Your task to perform on an android device: Go to notification settings Image 0: 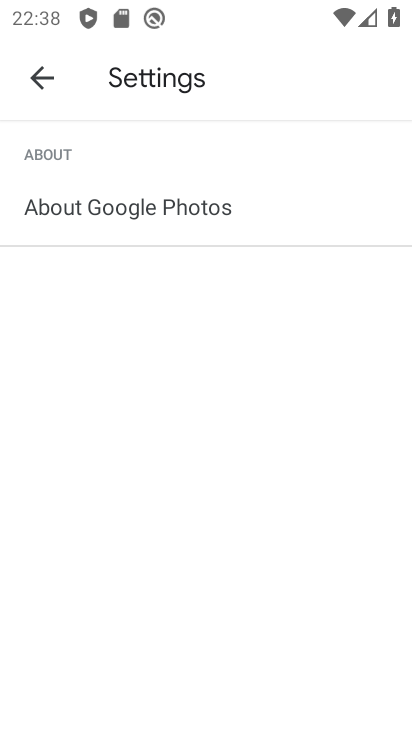
Step 0: press home button
Your task to perform on an android device: Go to notification settings Image 1: 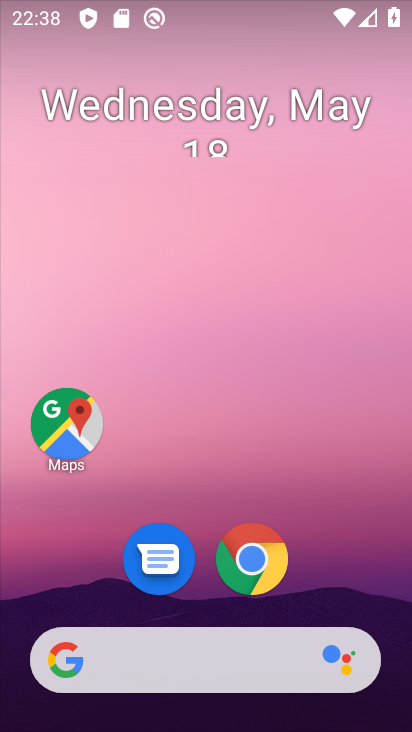
Step 1: drag from (284, 567) to (244, 141)
Your task to perform on an android device: Go to notification settings Image 2: 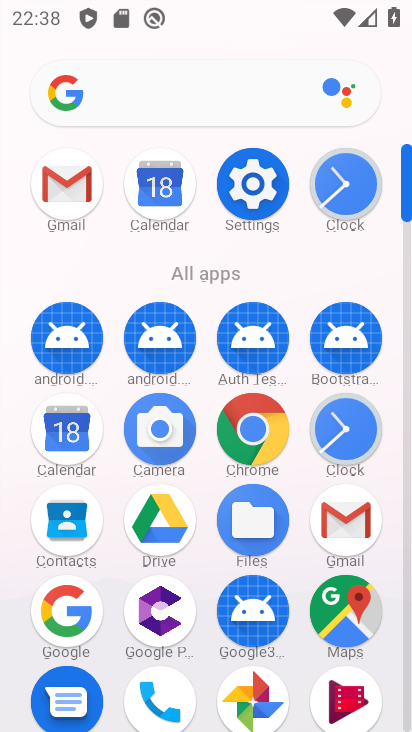
Step 2: click (243, 187)
Your task to perform on an android device: Go to notification settings Image 3: 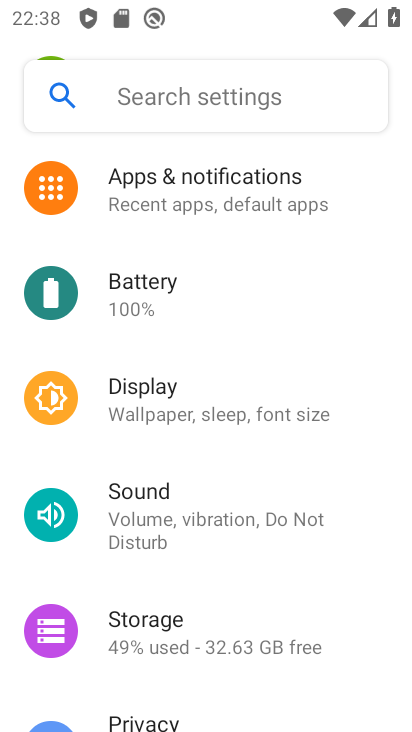
Step 3: click (198, 203)
Your task to perform on an android device: Go to notification settings Image 4: 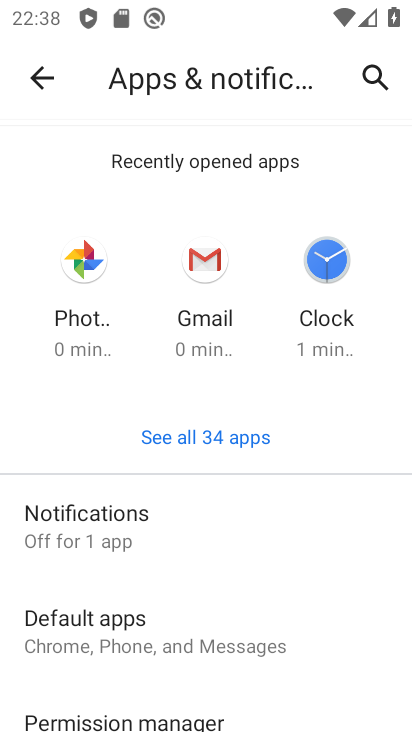
Step 4: click (94, 530)
Your task to perform on an android device: Go to notification settings Image 5: 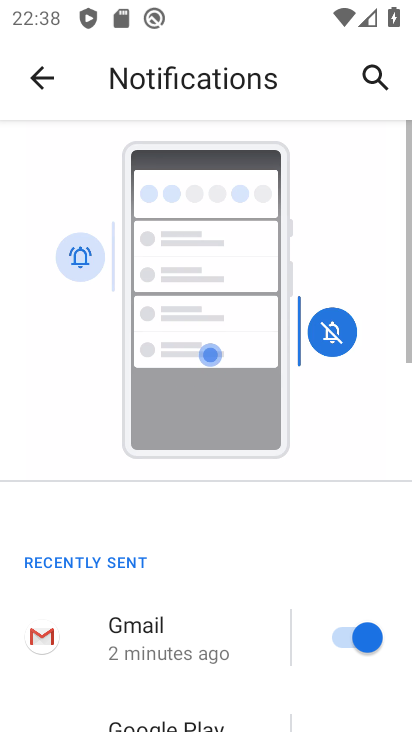
Step 5: task complete